Your task to perform on an android device: Show me popular games on the Play Store Image 0: 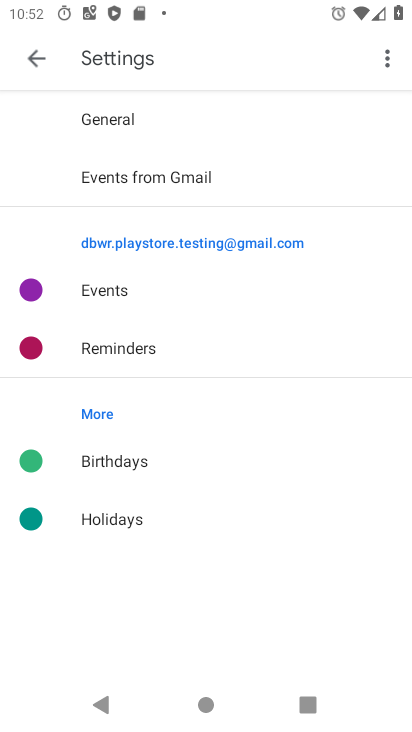
Step 0: press back button
Your task to perform on an android device: Show me popular games on the Play Store Image 1: 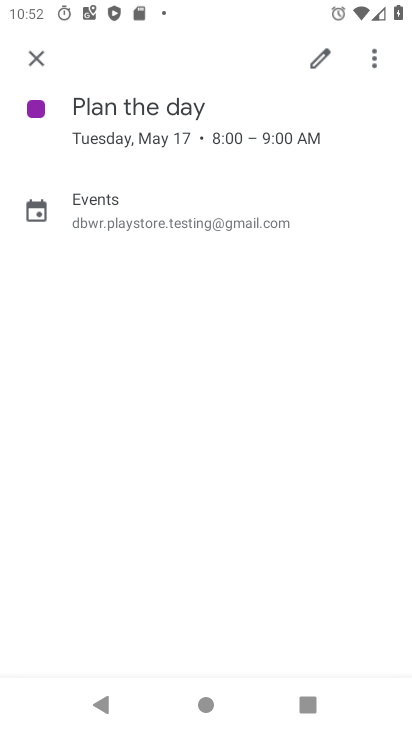
Step 1: click (32, 54)
Your task to perform on an android device: Show me popular games on the Play Store Image 2: 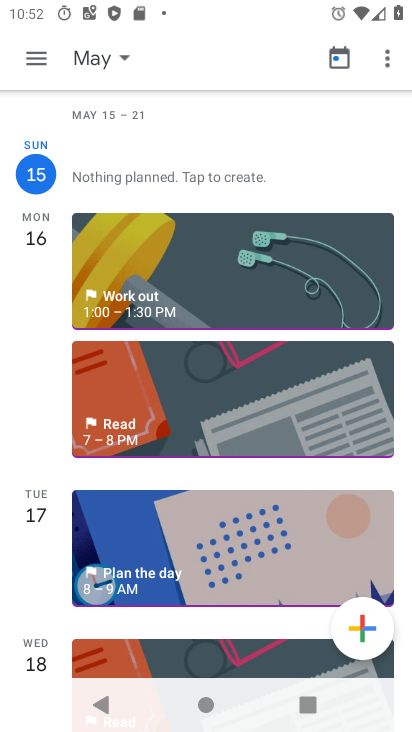
Step 2: press back button
Your task to perform on an android device: Show me popular games on the Play Store Image 3: 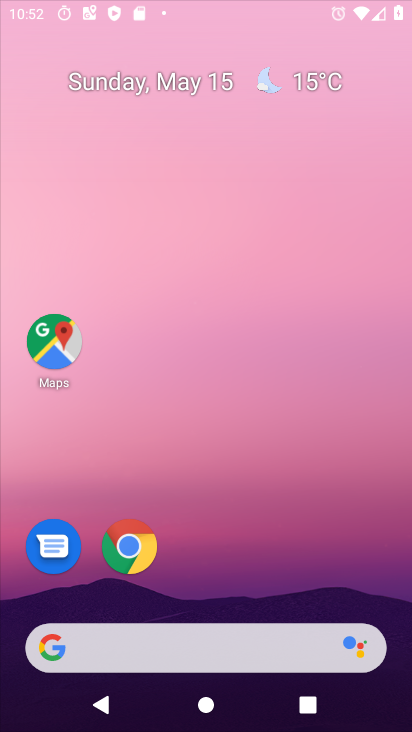
Step 3: press back button
Your task to perform on an android device: Show me popular games on the Play Store Image 4: 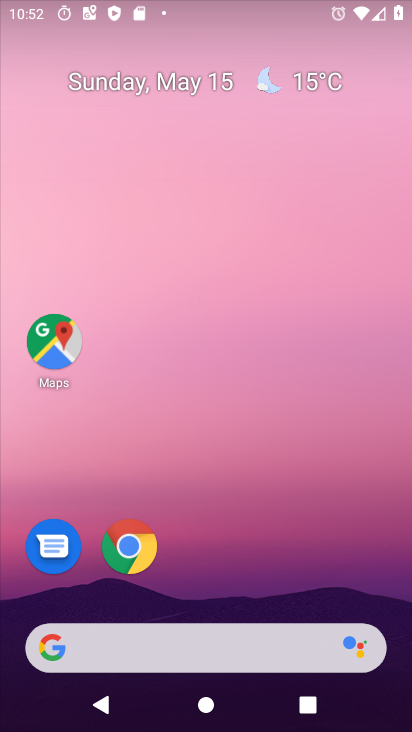
Step 4: press back button
Your task to perform on an android device: Show me popular games on the Play Store Image 5: 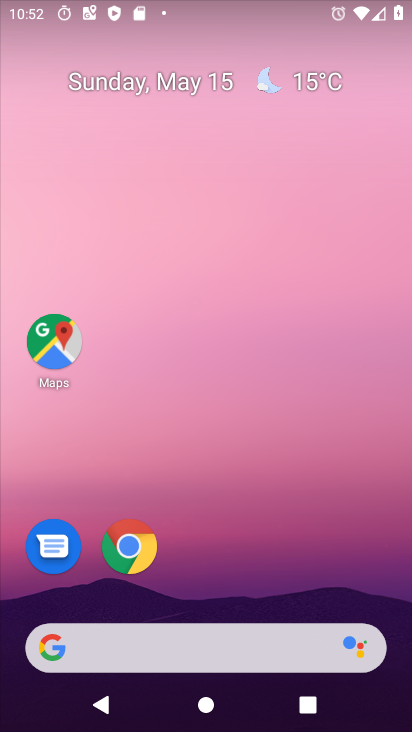
Step 5: drag from (246, 648) to (143, 145)
Your task to perform on an android device: Show me popular games on the Play Store Image 6: 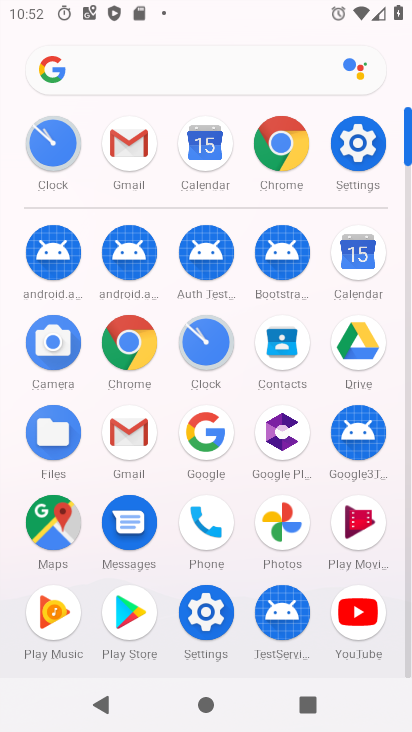
Step 6: click (128, 621)
Your task to perform on an android device: Show me popular games on the Play Store Image 7: 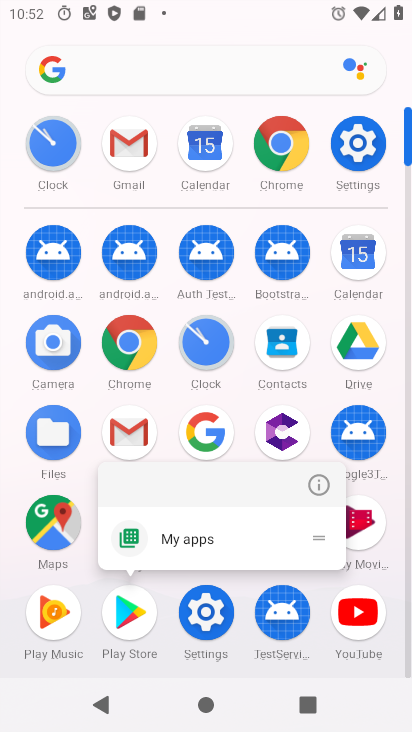
Step 7: click (132, 629)
Your task to perform on an android device: Show me popular games on the Play Store Image 8: 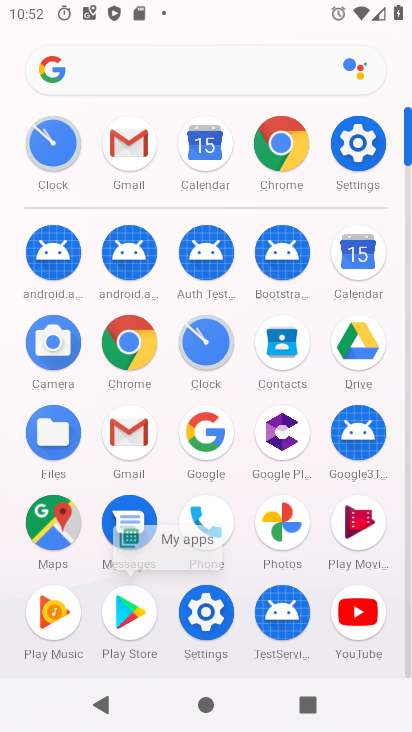
Step 8: click (132, 629)
Your task to perform on an android device: Show me popular games on the Play Store Image 9: 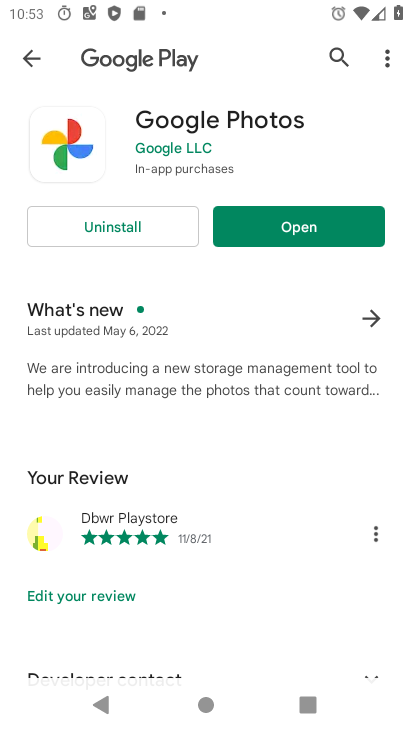
Step 9: press back button
Your task to perform on an android device: Show me popular games on the Play Store Image 10: 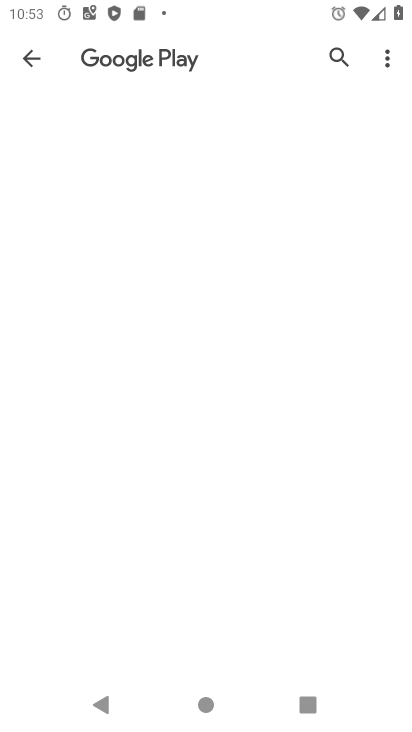
Step 10: press back button
Your task to perform on an android device: Show me popular games on the Play Store Image 11: 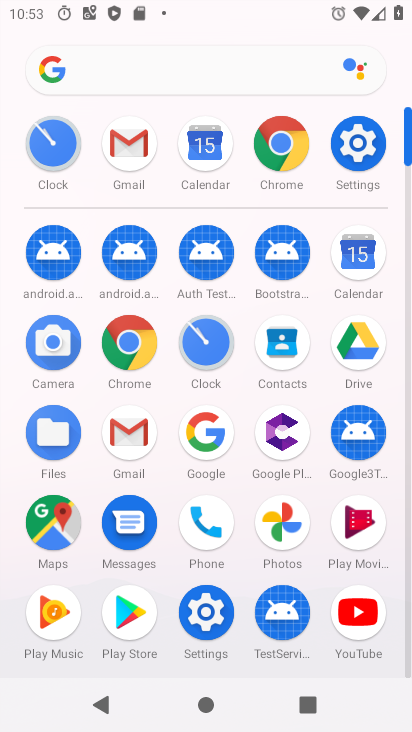
Step 11: press back button
Your task to perform on an android device: Show me popular games on the Play Store Image 12: 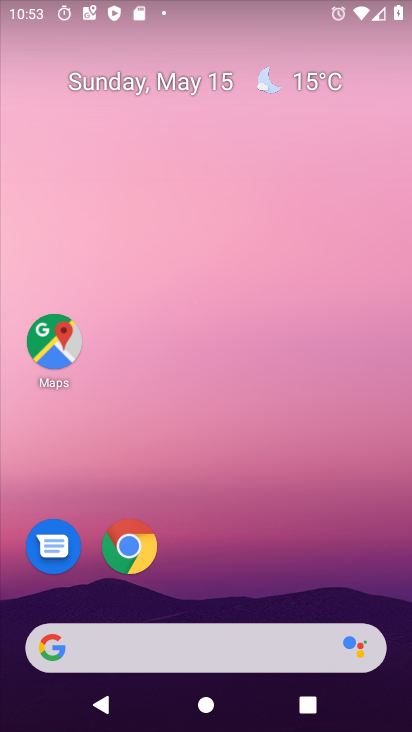
Step 12: drag from (268, 675) to (195, 3)
Your task to perform on an android device: Show me popular games on the Play Store Image 13: 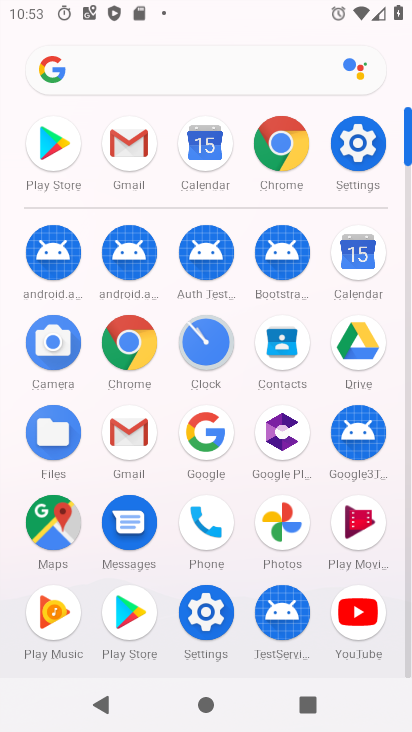
Step 13: click (124, 604)
Your task to perform on an android device: Show me popular games on the Play Store Image 14: 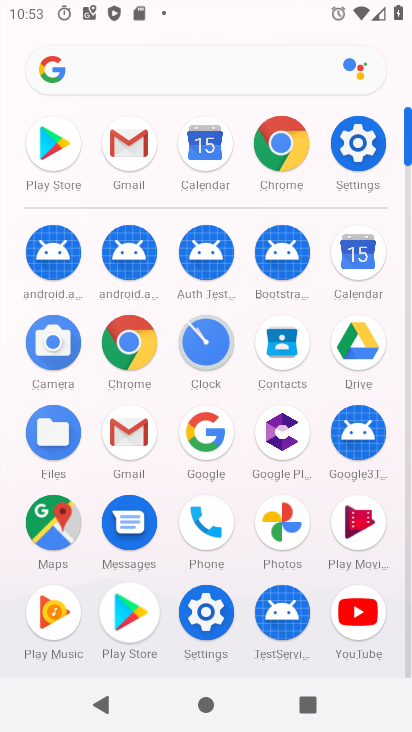
Step 14: click (124, 602)
Your task to perform on an android device: Show me popular games on the Play Store Image 15: 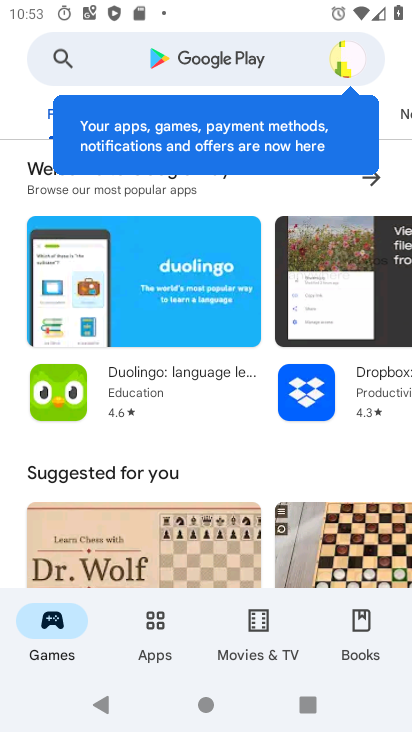
Step 15: click (198, 55)
Your task to perform on an android device: Show me popular games on the Play Store Image 16: 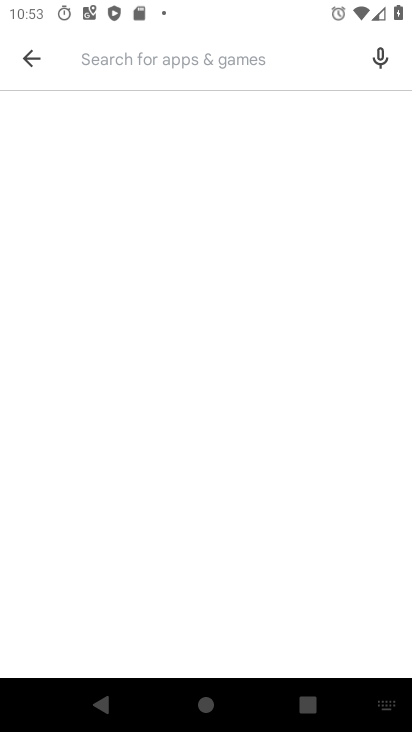
Step 16: type "popular games"
Your task to perform on an android device: Show me popular games on the Play Store Image 17: 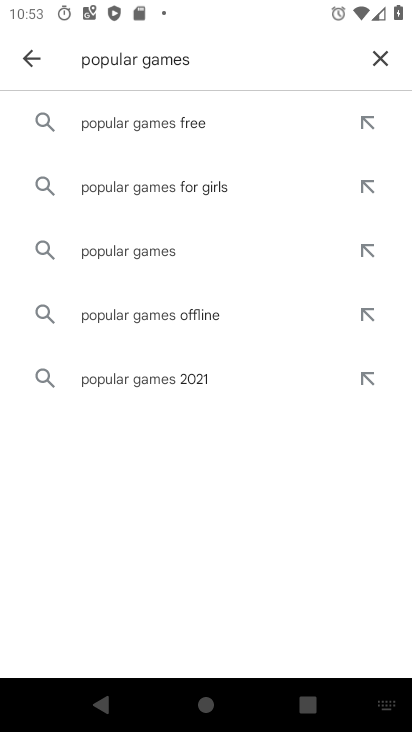
Step 17: click (144, 124)
Your task to perform on an android device: Show me popular games on the Play Store Image 18: 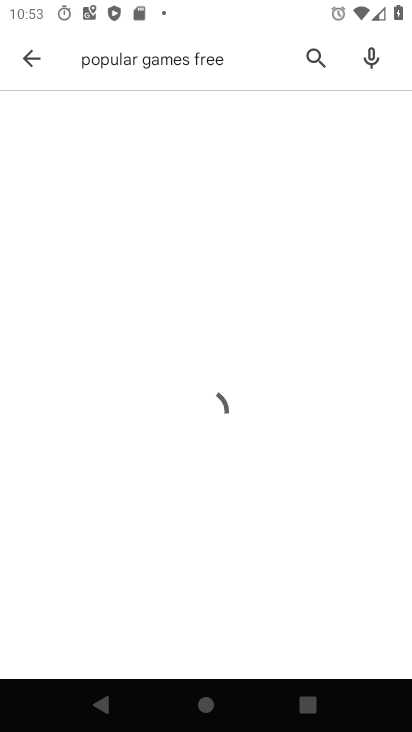
Step 18: click (144, 124)
Your task to perform on an android device: Show me popular games on the Play Store Image 19: 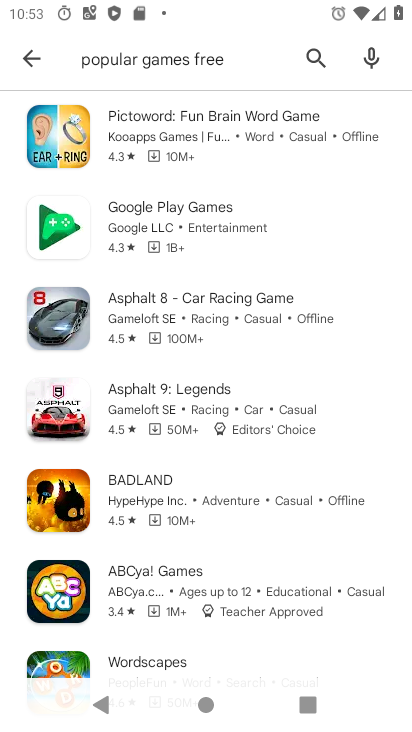
Step 19: drag from (159, 222) to (158, 28)
Your task to perform on an android device: Show me popular games on the Play Store Image 20: 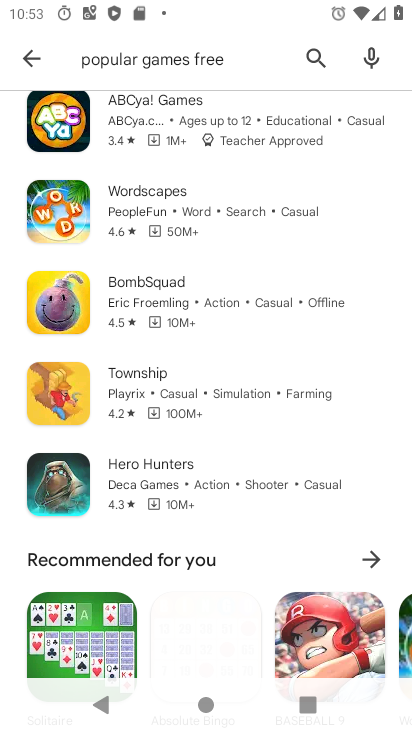
Step 20: drag from (196, 411) to (196, 111)
Your task to perform on an android device: Show me popular games on the Play Store Image 21: 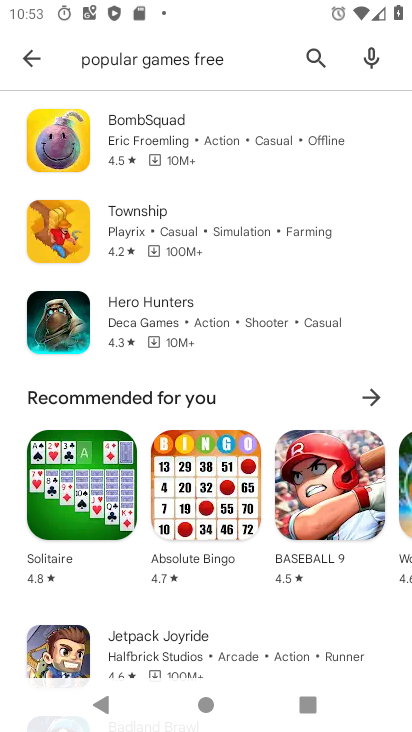
Step 21: drag from (206, 399) to (154, 46)
Your task to perform on an android device: Show me popular games on the Play Store Image 22: 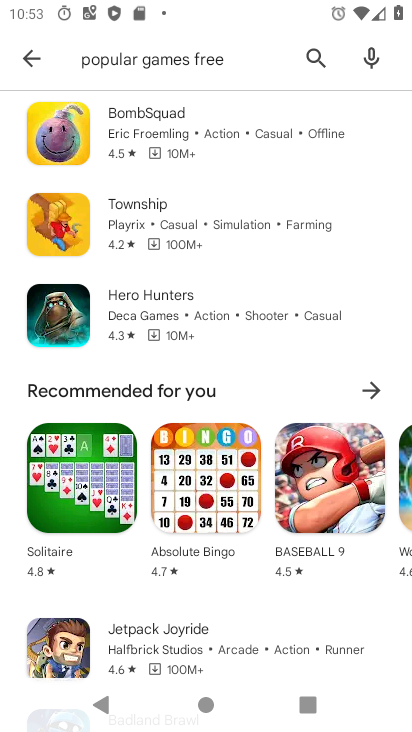
Step 22: click (253, 578)
Your task to perform on an android device: Show me popular games on the Play Store Image 23: 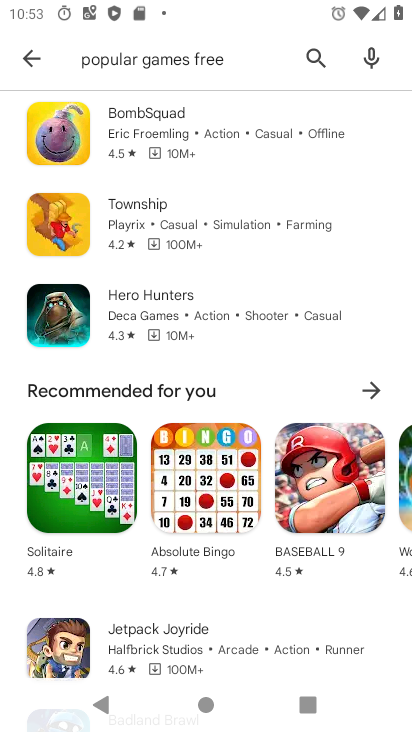
Step 23: drag from (248, 425) to (277, 577)
Your task to perform on an android device: Show me popular games on the Play Store Image 24: 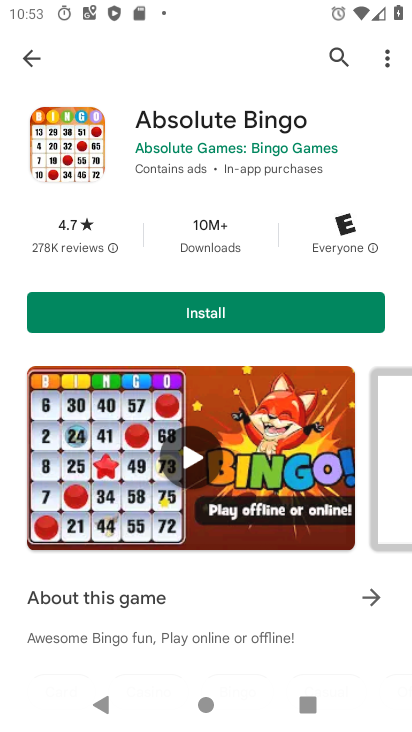
Step 24: drag from (199, 197) to (198, 347)
Your task to perform on an android device: Show me popular games on the Play Store Image 25: 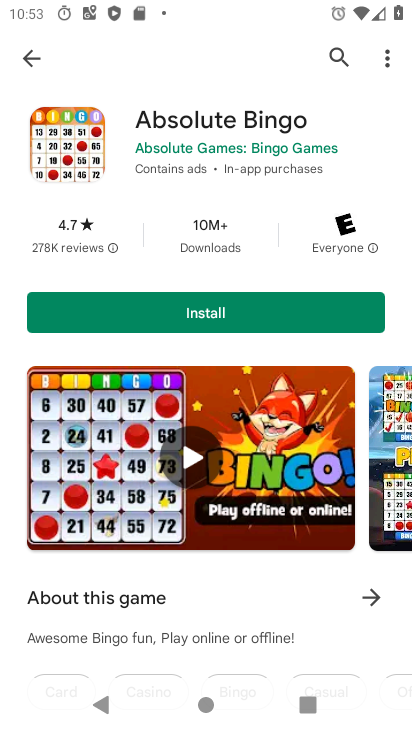
Step 25: click (27, 38)
Your task to perform on an android device: Show me popular games on the Play Store Image 26: 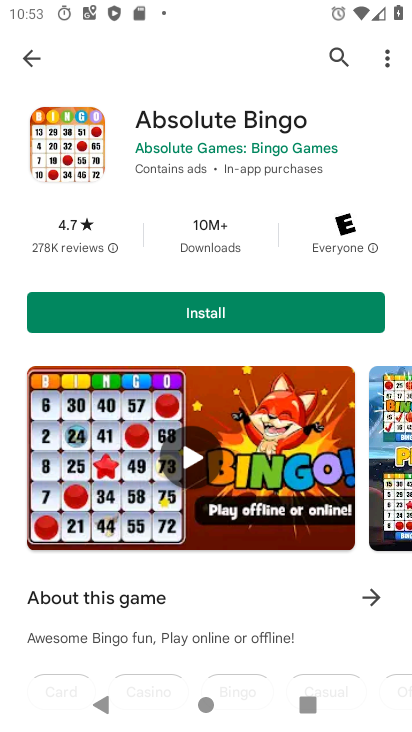
Step 26: task complete